Your task to perform on an android device: refresh tabs in the chrome app Image 0: 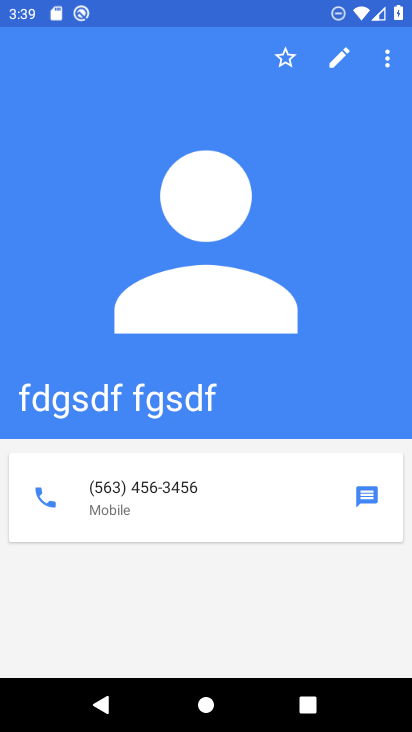
Step 0: press home button
Your task to perform on an android device: refresh tabs in the chrome app Image 1: 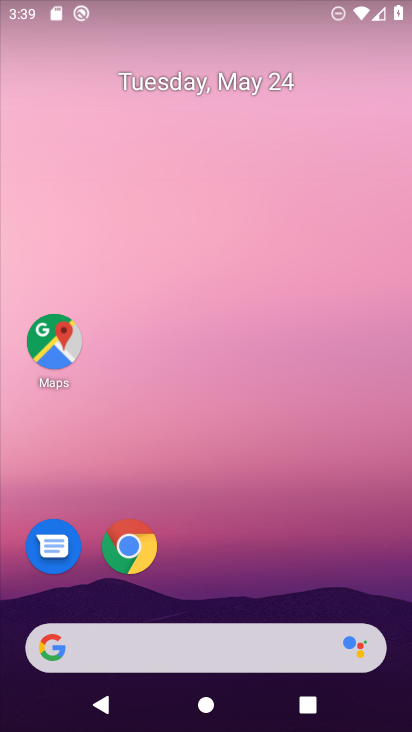
Step 1: click (132, 547)
Your task to perform on an android device: refresh tabs in the chrome app Image 2: 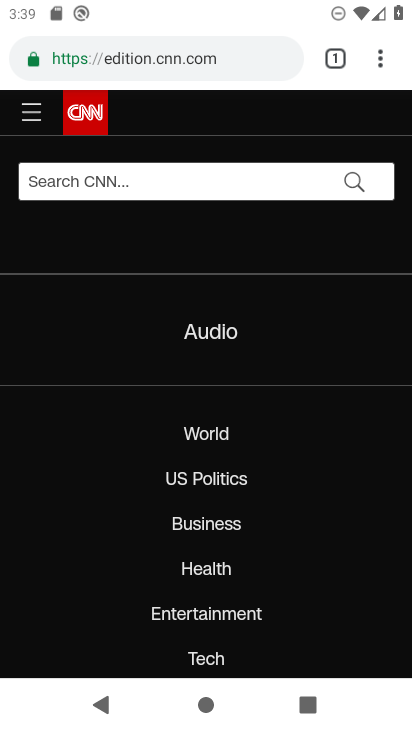
Step 2: click (369, 60)
Your task to perform on an android device: refresh tabs in the chrome app Image 3: 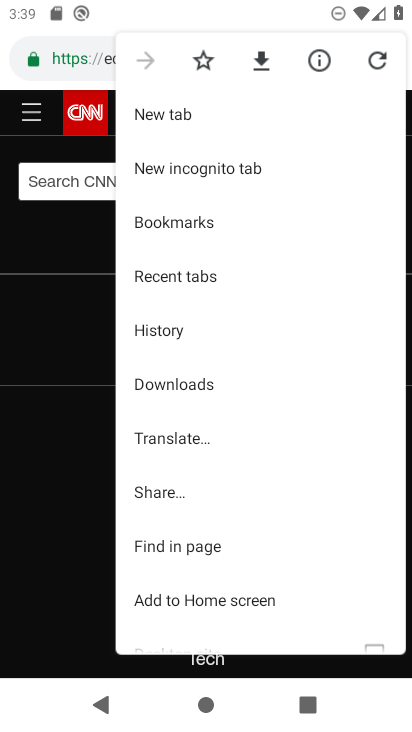
Step 3: click (372, 55)
Your task to perform on an android device: refresh tabs in the chrome app Image 4: 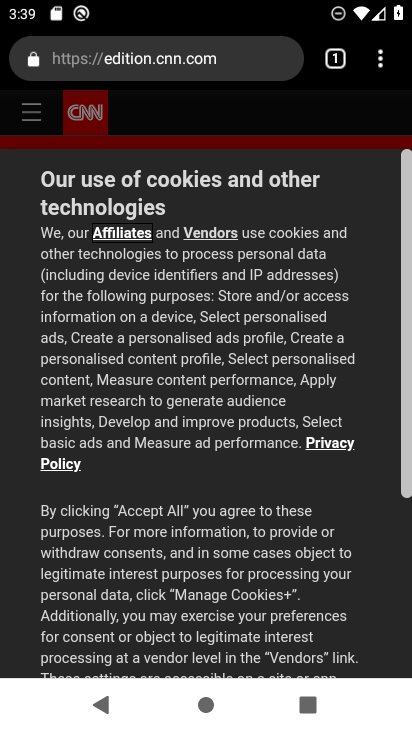
Step 4: task complete